Your task to perform on an android device: check data usage Image 0: 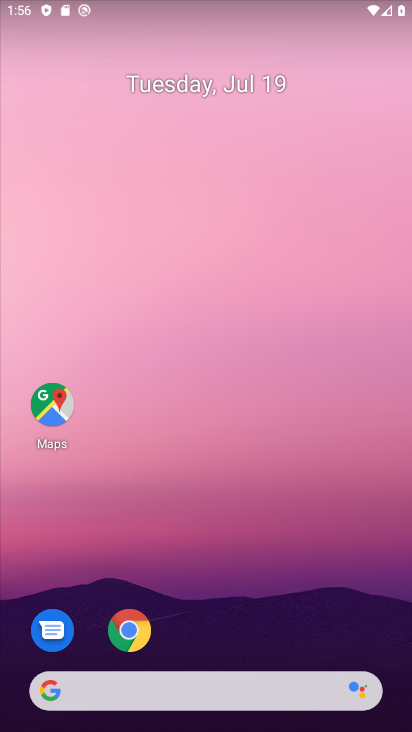
Step 0: drag from (265, 624) to (273, 44)
Your task to perform on an android device: check data usage Image 1: 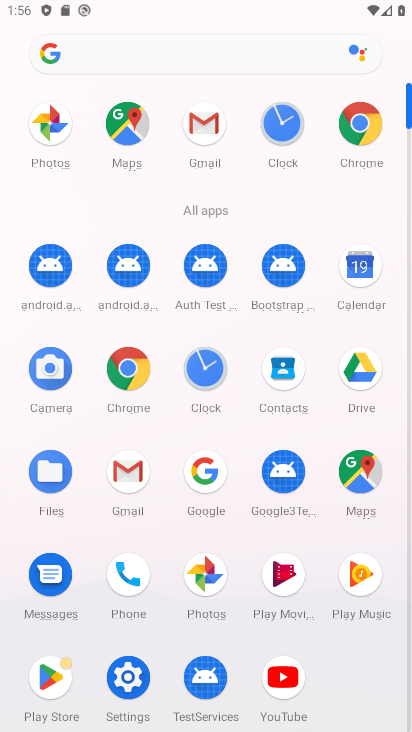
Step 1: click (132, 666)
Your task to perform on an android device: check data usage Image 2: 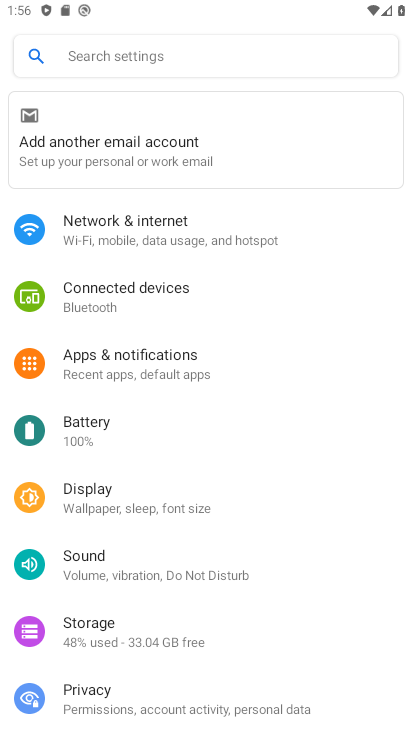
Step 2: click (203, 222)
Your task to perform on an android device: check data usage Image 3: 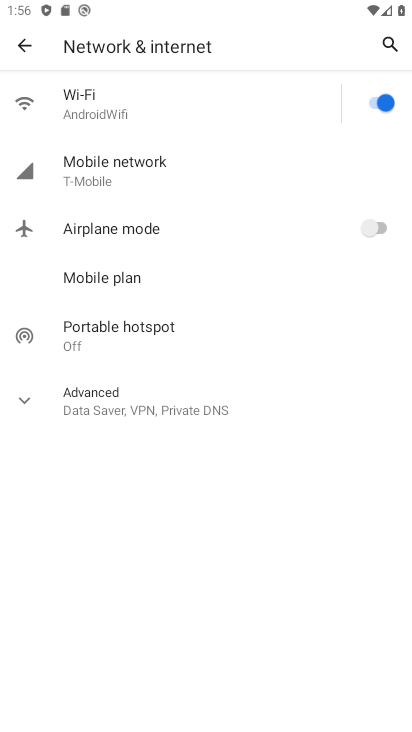
Step 3: click (191, 167)
Your task to perform on an android device: check data usage Image 4: 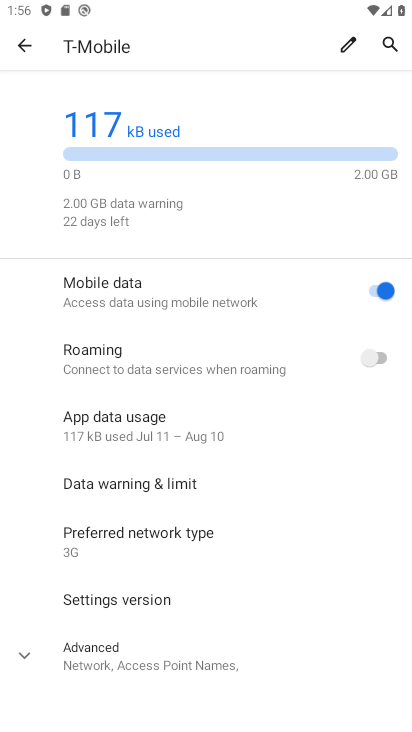
Step 4: task complete